Your task to perform on an android device: Look up the top rated 18v miter saw on Home Depot. Image 0: 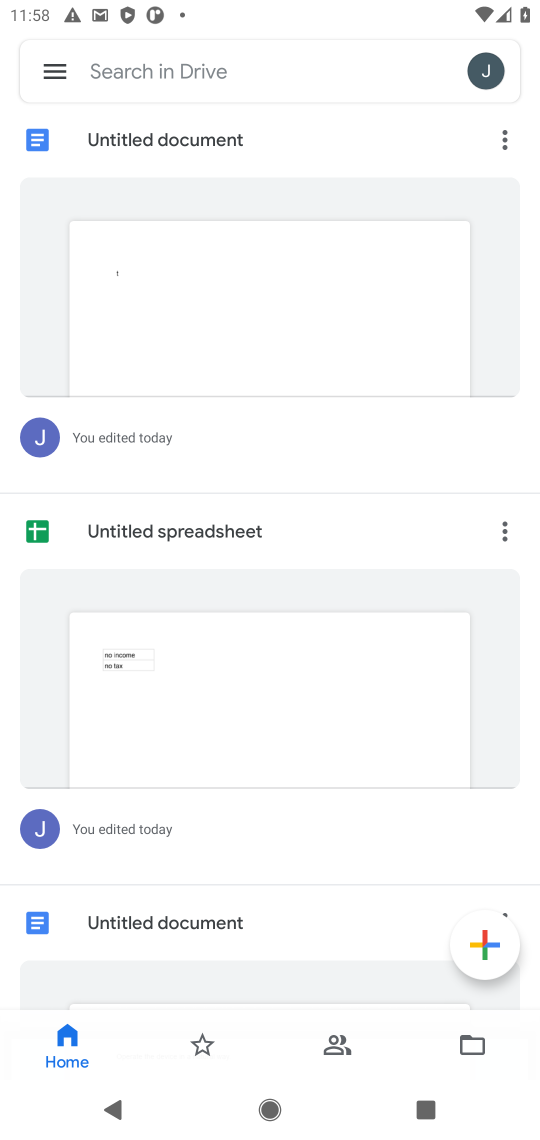
Step 0: press home button
Your task to perform on an android device: Look up the top rated 18v miter saw on Home Depot. Image 1: 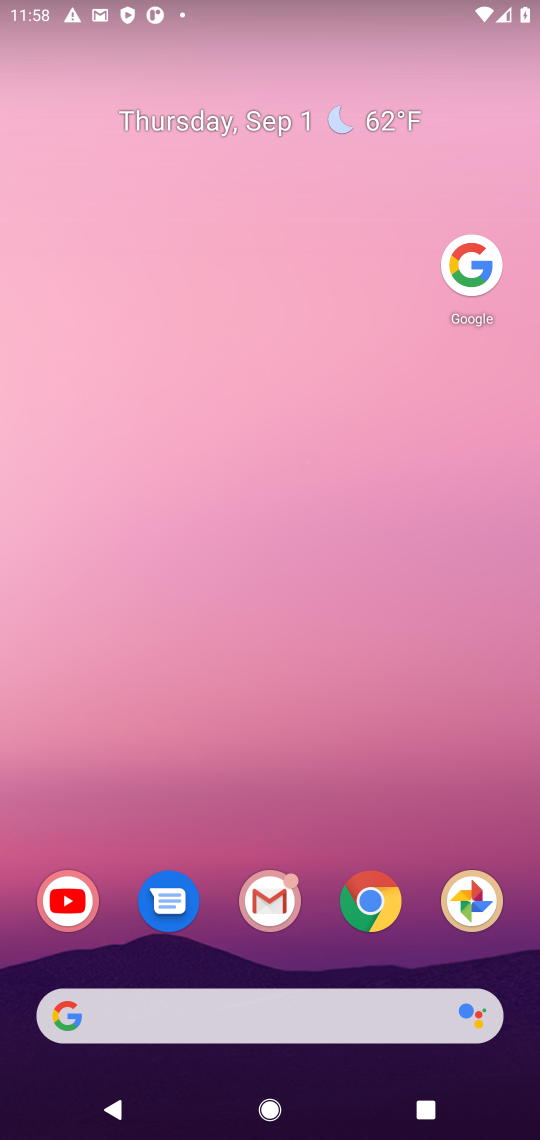
Step 1: click (255, 427)
Your task to perform on an android device: Look up the top rated 18v miter saw on Home Depot. Image 2: 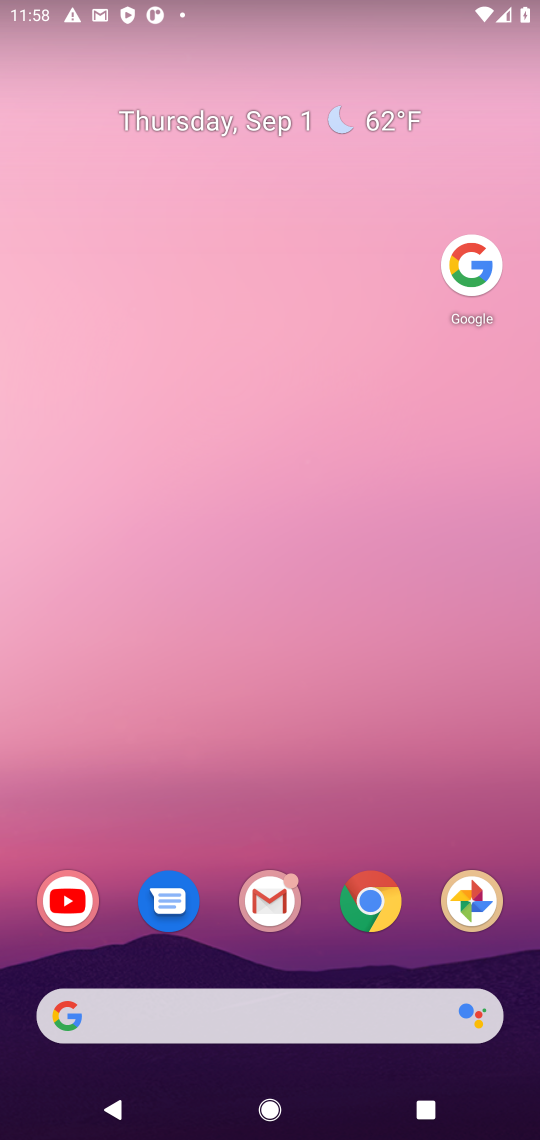
Step 2: click (222, 554)
Your task to perform on an android device: Look up the top rated 18v miter saw on Home Depot. Image 3: 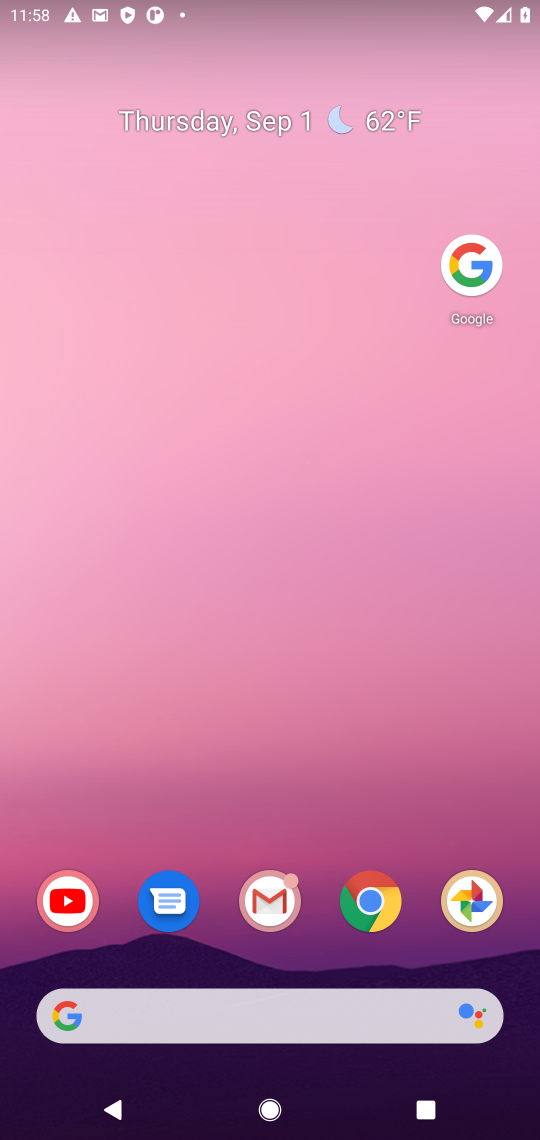
Step 3: click (241, 475)
Your task to perform on an android device: Look up the top rated 18v miter saw on Home Depot. Image 4: 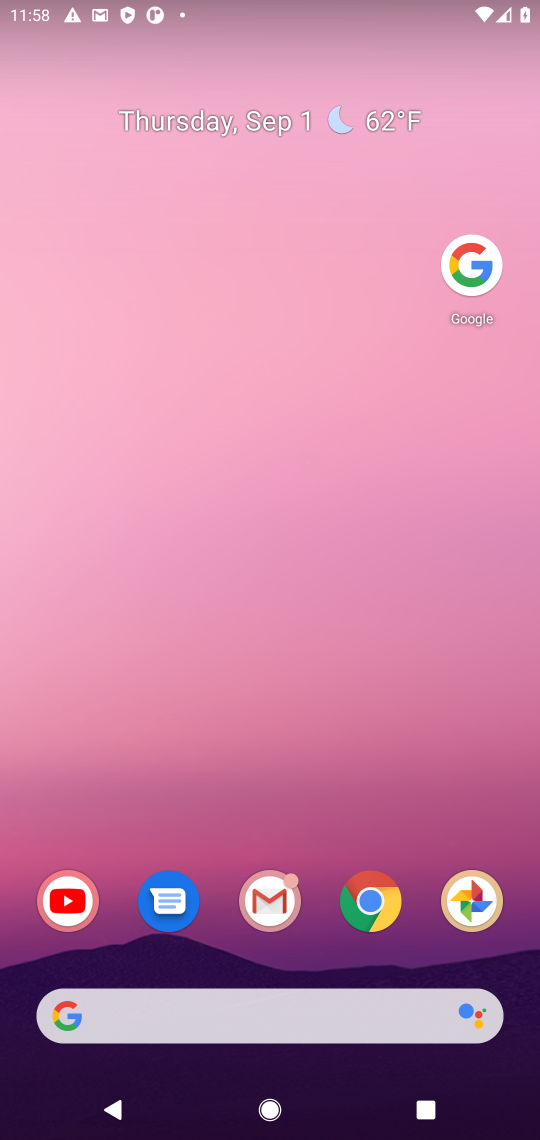
Step 4: drag from (259, 925) to (469, 260)
Your task to perform on an android device: Look up the top rated 18v miter saw on Home Depot. Image 5: 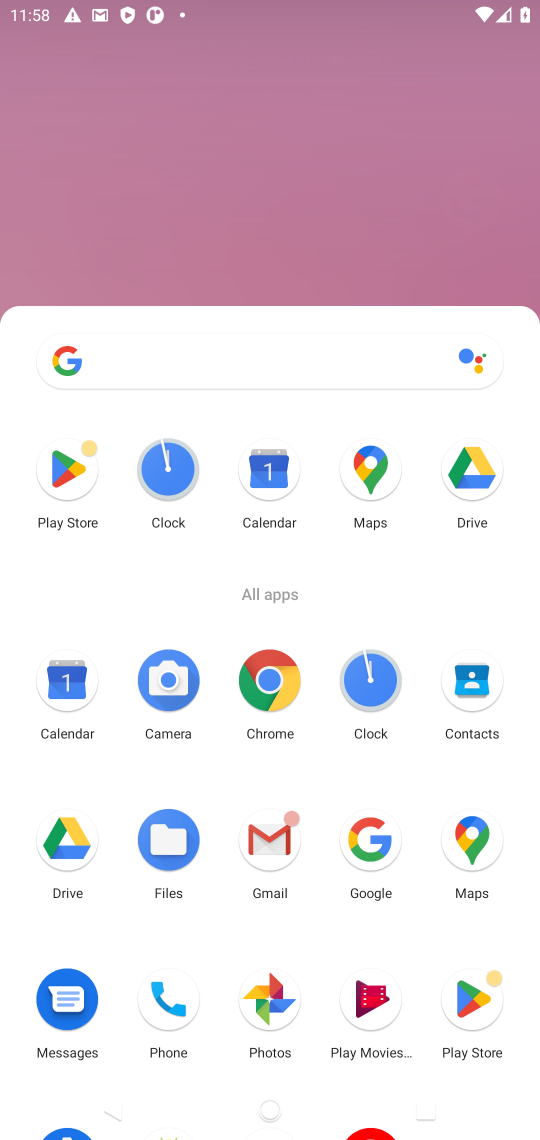
Step 5: click (469, 260)
Your task to perform on an android device: Look up the top rated 18v miter saw on Home Depot. Image 6: 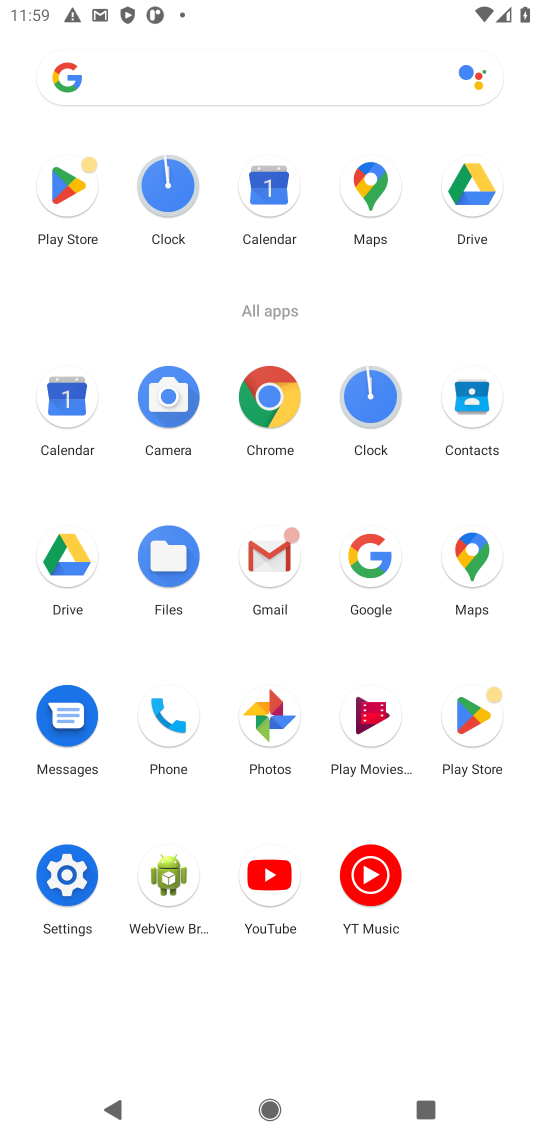
Step 6: drag from (296, 257) to (292, 933)
Your task to perform on an android device: Look up the top rated 18v miter saw on Home Depot. Image 7: 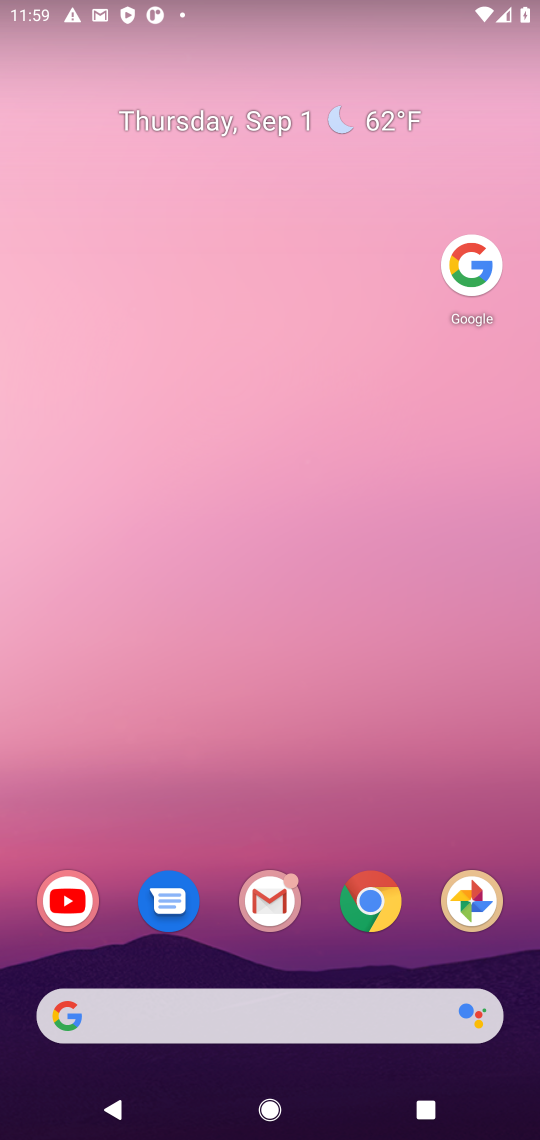
Step 7: click (287, 209)
Your task to perform on an android device: Look up the top rated 18v miter saw on Home Depot. Image 8: 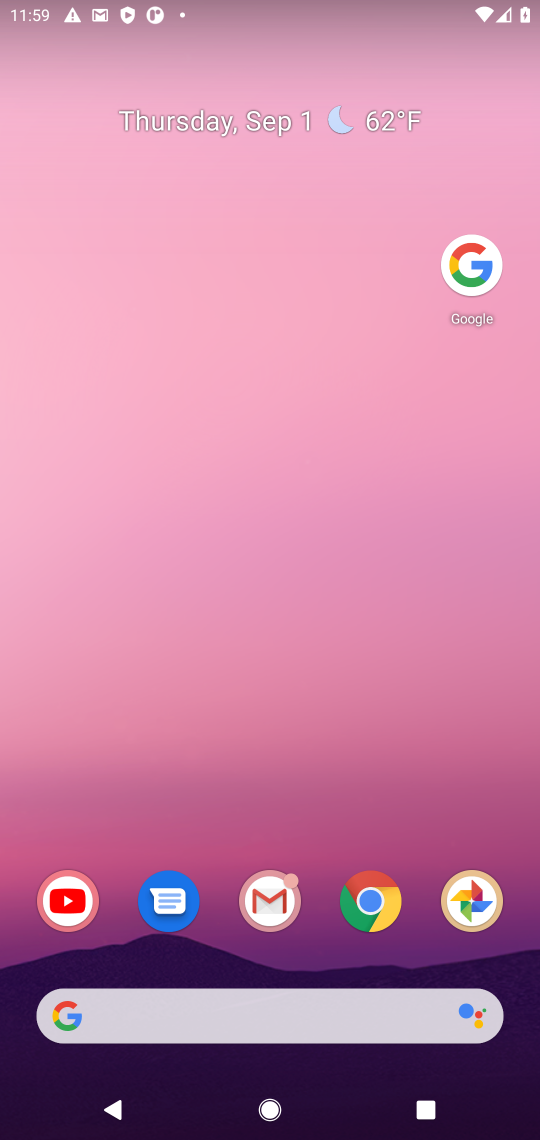
Step 8: click (465, 254)
Your task to perform on an android device: Look up the top rated 18v miter saw on Home Depot. Image 9: 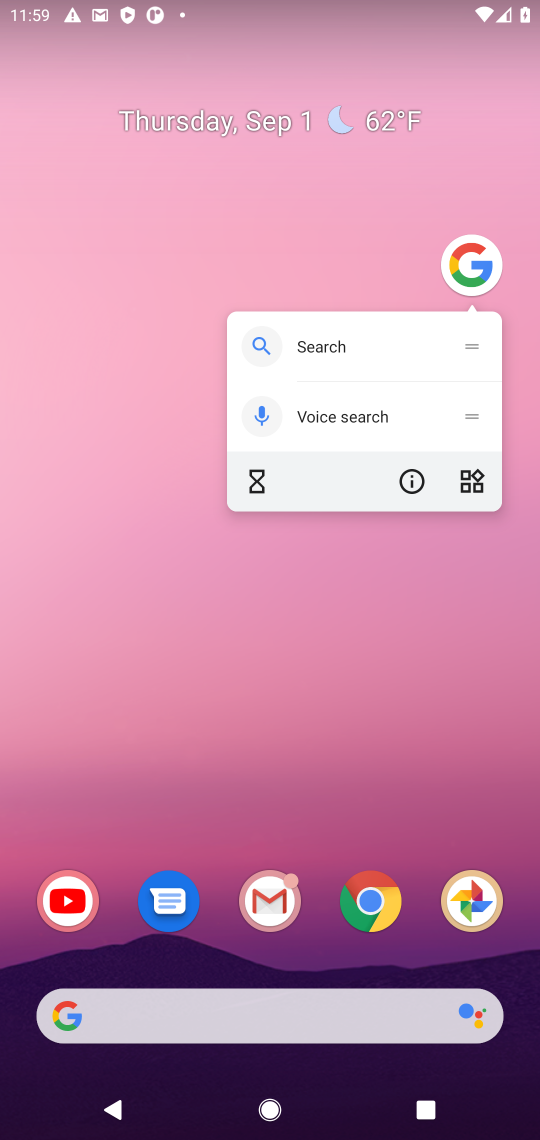
Step 9: click (469, 274)
Your task to perform on an android device: Look up the top rated 18v miter saw on Home Depot. Image 10: 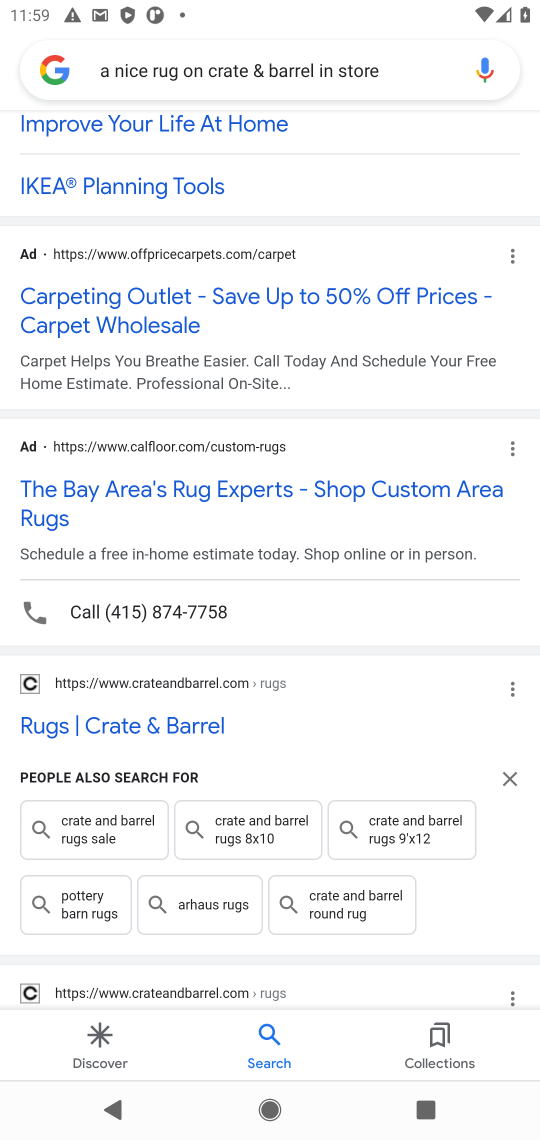
Step 10: click (404, 69)
Your task to perform on an android device: Look up the top rated 18v miter saw on Home Depot. Image 11: 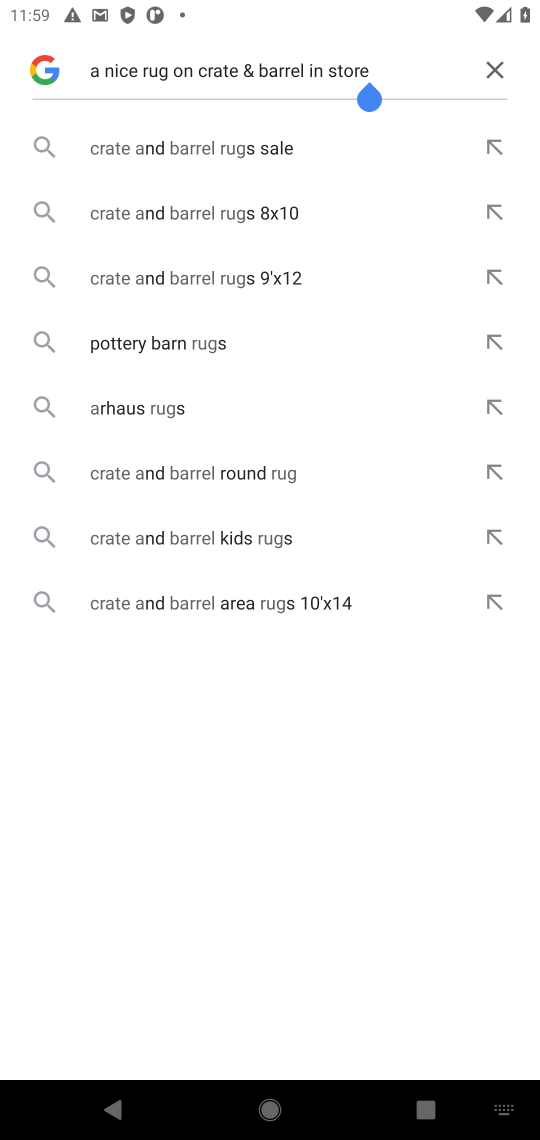
Step 11: click (493, 62)
Your task to perform on an android device: Look up the top rated 18v miter saw on Home Depot. Image 12: 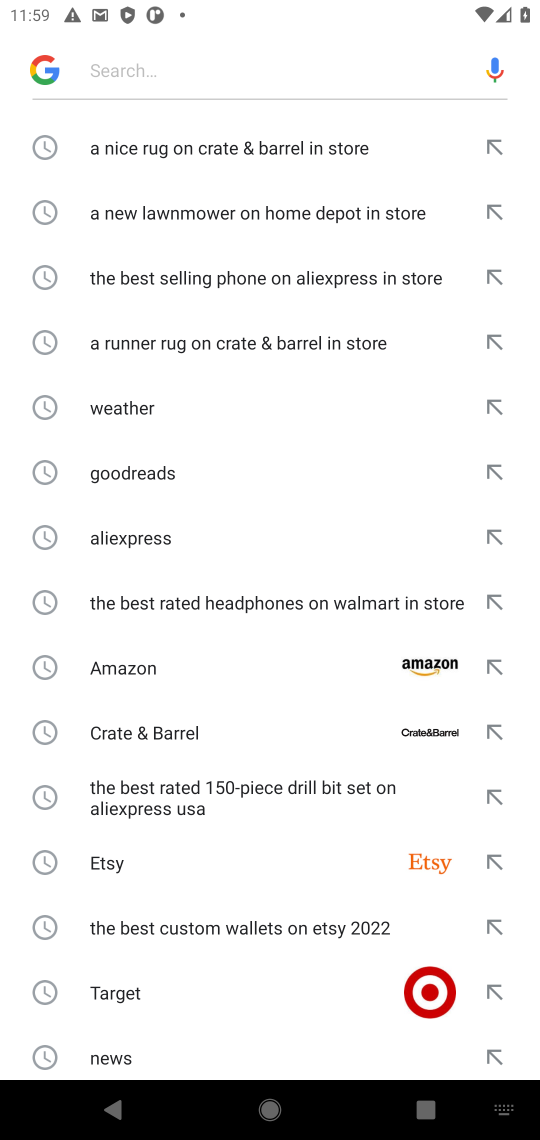
Step 12: click (273, 59)
Your task to perform on an android device: Look up the top rated 18v miter saw on Home Depot. Image 13: 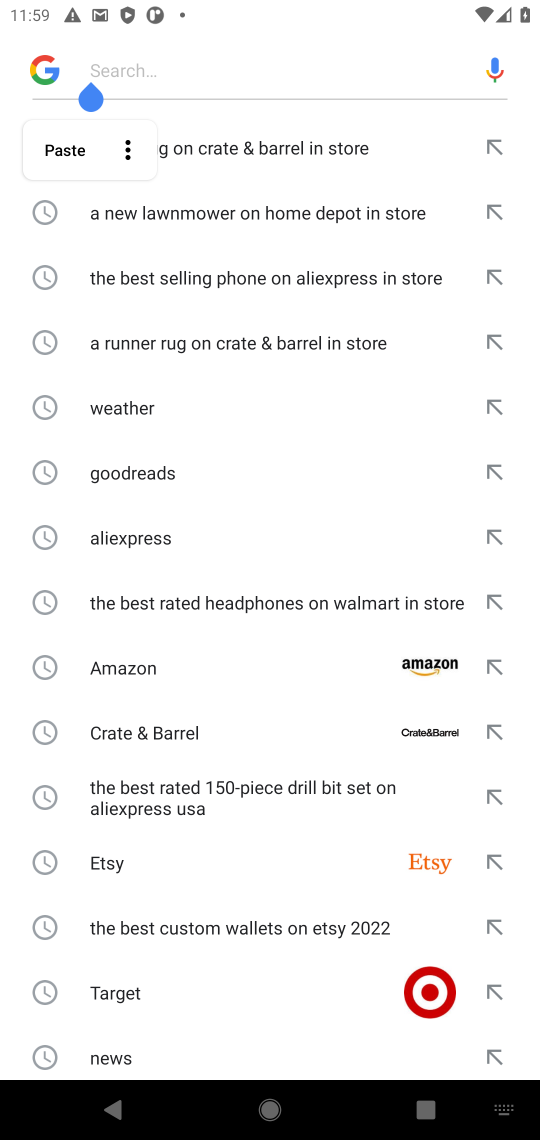
Step 13: type " the top rated 18v miter saw on Home Depot "
Your task to perform on an android device: Look up the top rated 18v miter saw on Home Depot. Image 14: 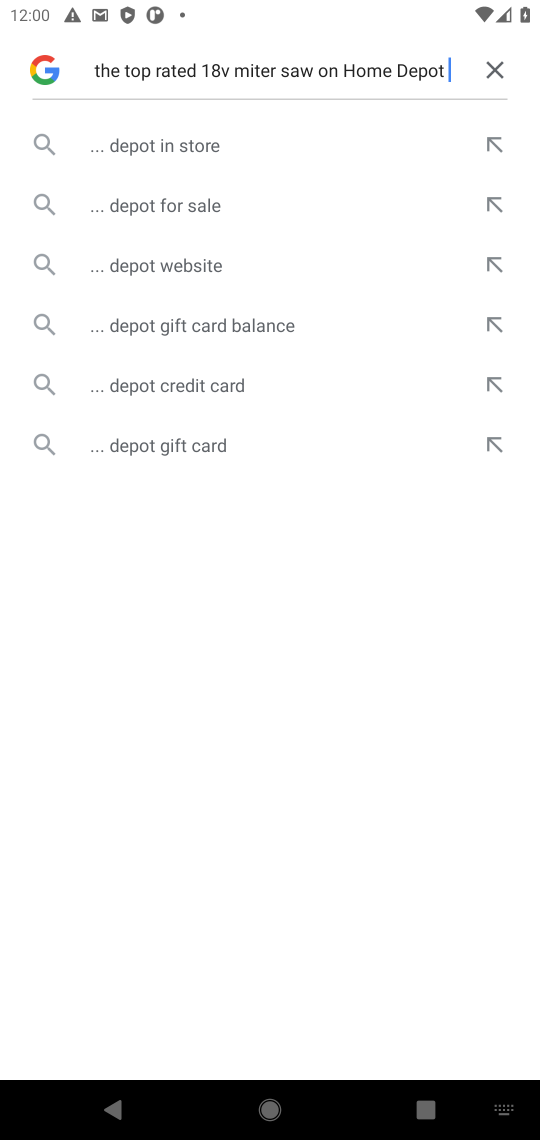
Step 14: click (182, 143)
Your task to perform on an android device: Look up the top rated 18v miter saw on Home Depot. Image 15: 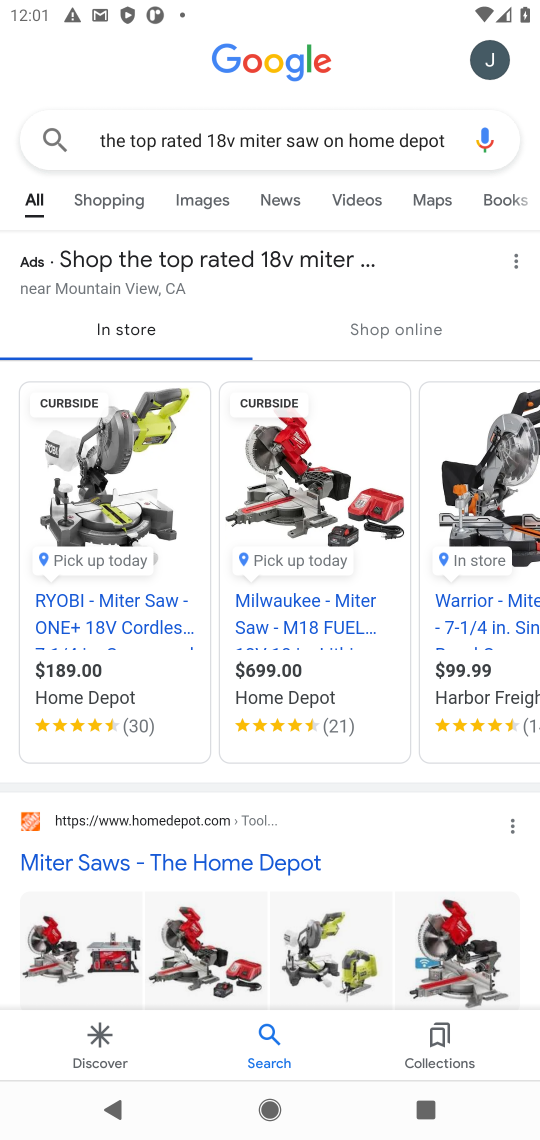
Step 15: task complete